Your task to perform on an android device: Search for Mexican restaurants on Maps Image 0: 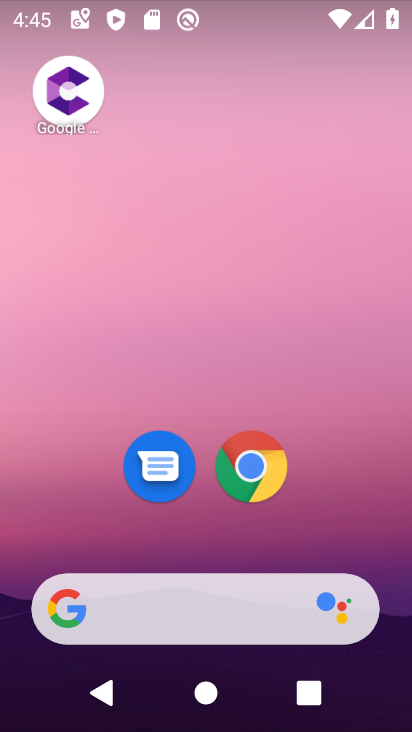
Step 0: drag from (205, 721) to (207, 72)
Your task to perform on an android device: Search for Mexican restaurants on Maps Image 1: 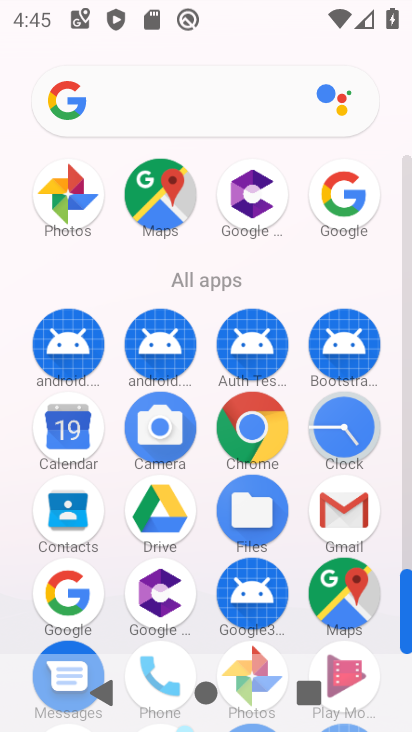
Step 1: click (343, 593)
Your task to perform on an android device: Search for Mexican restaurants on Maps Image 2: 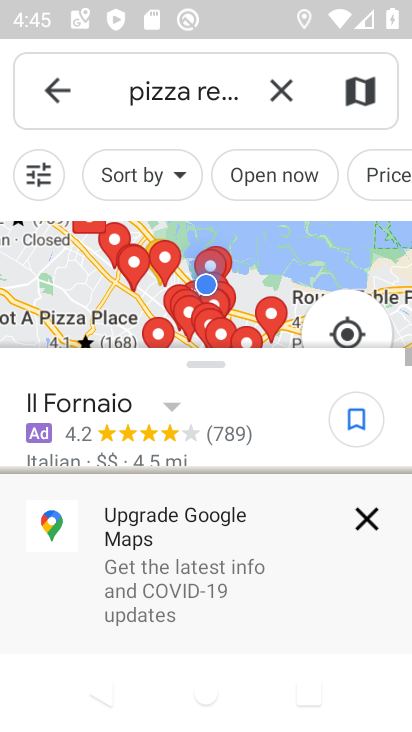
Step 2: click (279, 78)
Your task to perform on an android device: Search for Mexican restaurants on Maps Image 3: 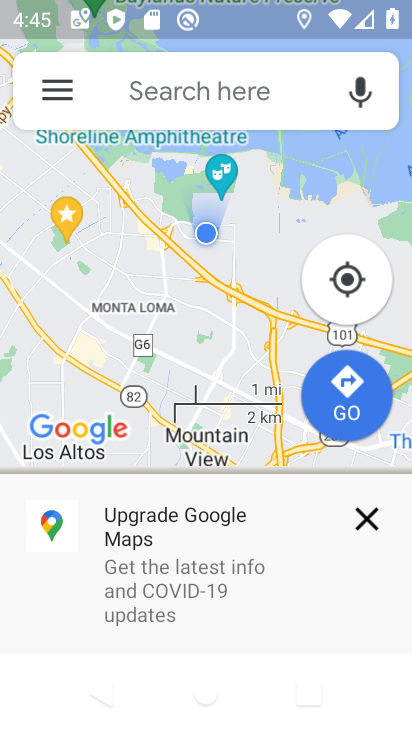
Step 3: click (182, 87)
Your task to perform on an android device: Search for Mexican restaurants on Maps Image 4: 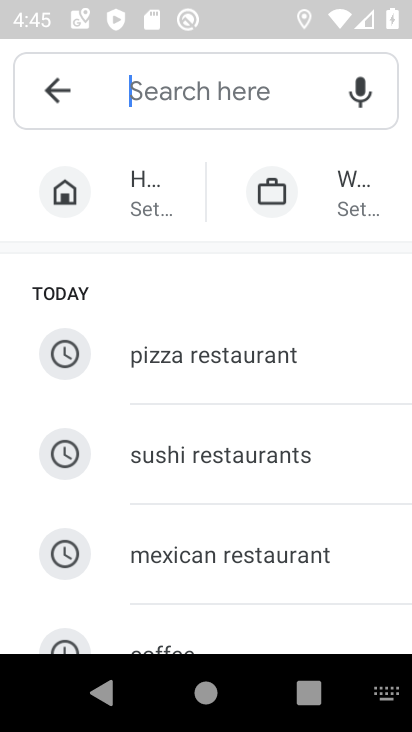
Step 4: type "Mexican restaurants"
Your task to perform on an android device: Search for Mexican restaurants on Maps Image 5: 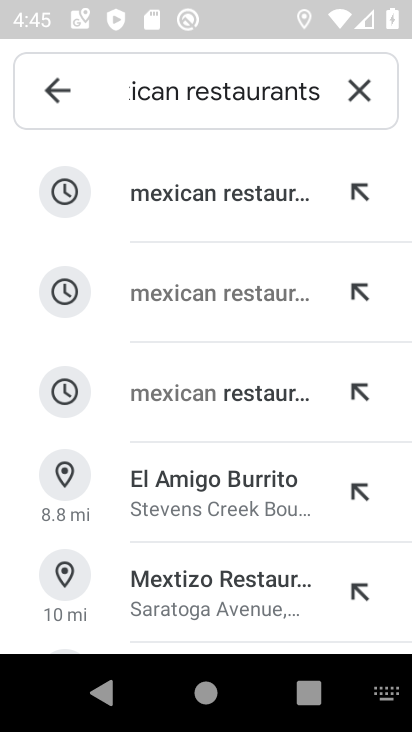
Step 5: click (202, 192)
Your task to perform on an android device: Search for Mexican restaurants on Maps Image 6: 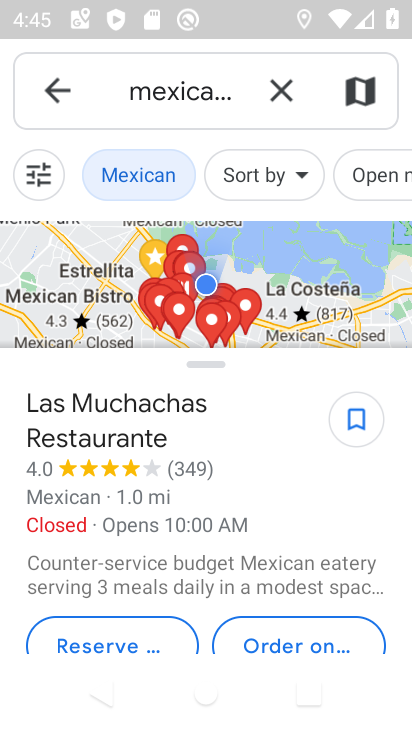
Step 6: task complete